Your task to perform on an android device: turn on improve location accuracy Image 0: 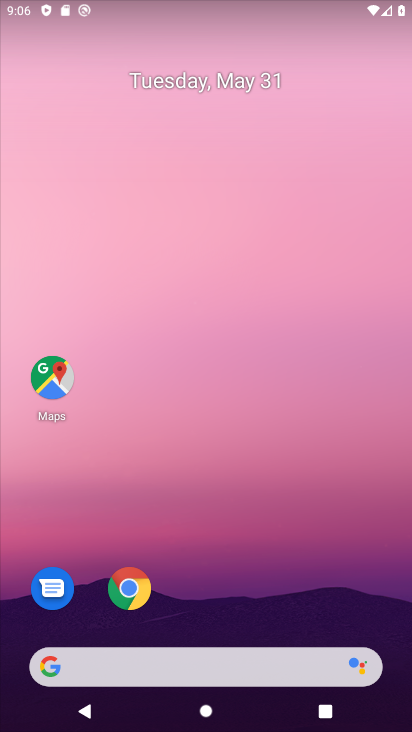
Step 0: drag from (201, 601) to (174, 53)
Your task to perform on an android device: turn on improve location accuracy Image 1: 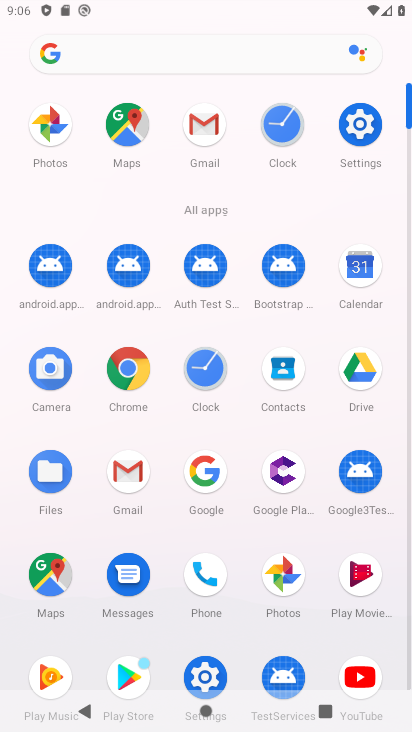
Step 1: click (359, 123)
Your task to perform on an android device: turn on improve location accuracy Image 2: 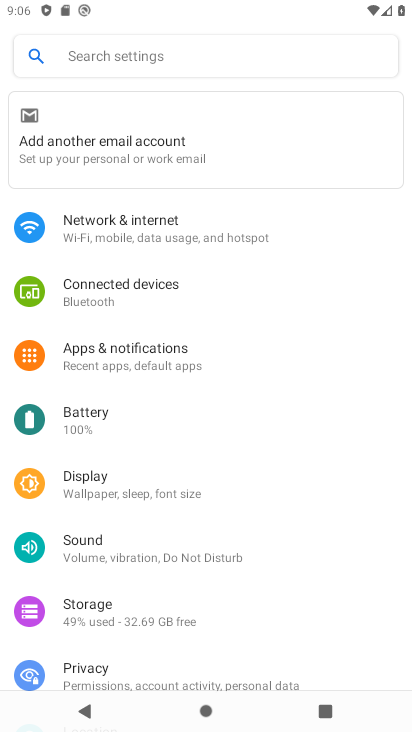
Step 2: drag from (38, 638) to (17, 232)
Your task to perform on an android device: turn on improve location accuracy Image 3: 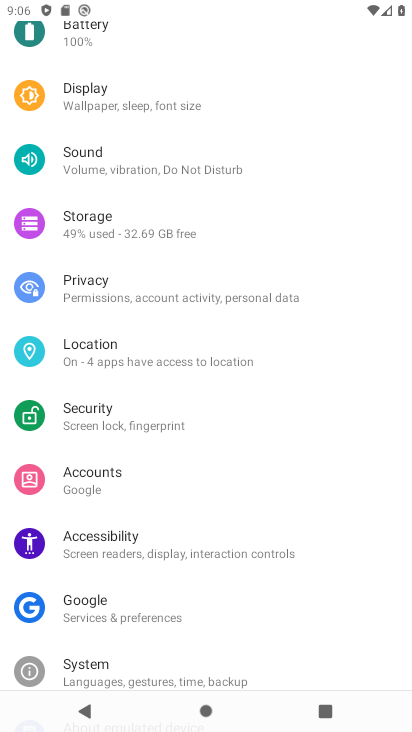
Step 3: click (138, 358)
Your task to perform on an android device: turn on improve location accuracy Image 4: 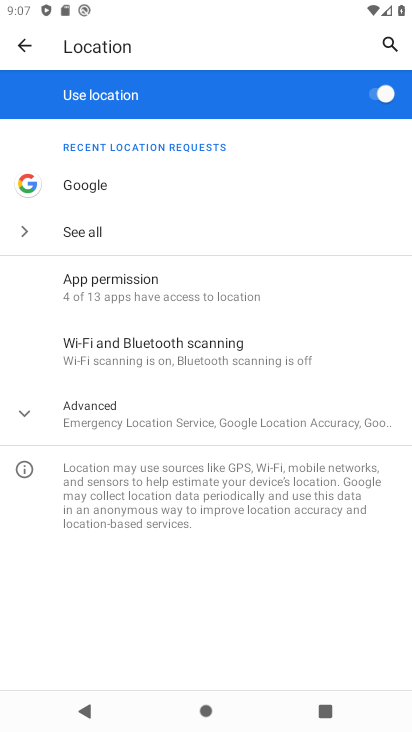
Step 4: click (78, 406)
Your task to perform on an android device: turn on improve location accuracy Image 5: 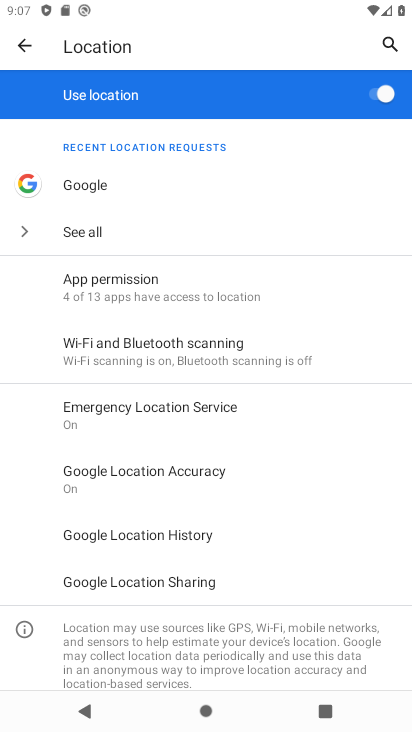
Step 5: click (119, 463)
Your task to perform on an android device: turn on improve location accuracy Image 6: 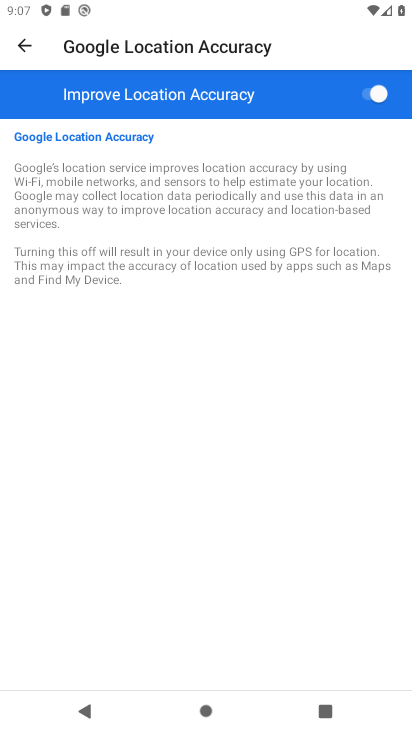
Step 6: task complete